Your task to perform on an android device: turn off location history Image 0: 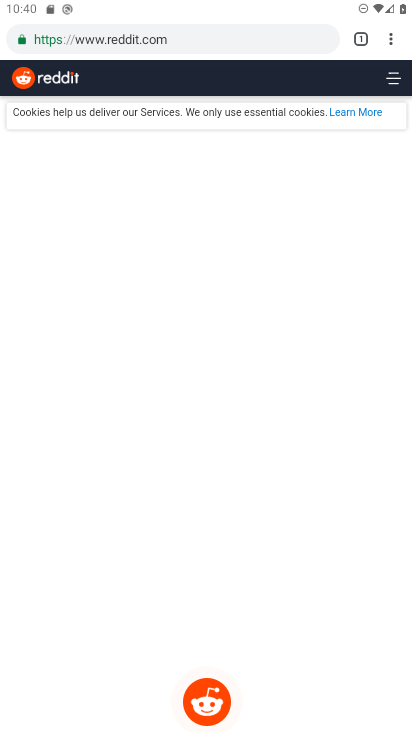
Step 0: press home button
Your task to perform on an android device: turn off location history Image 1: 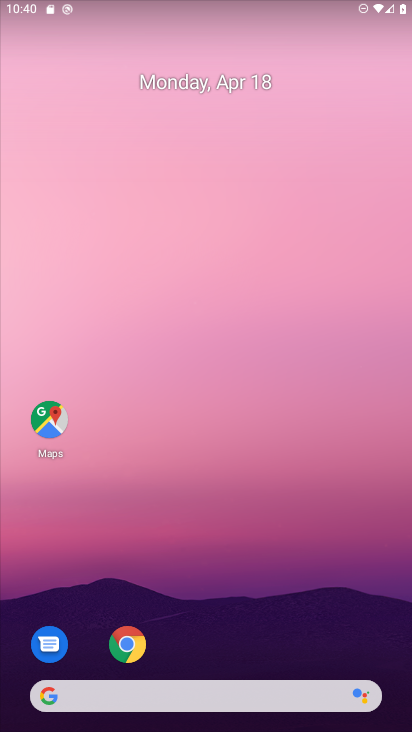
Step 1: drag from (210, 669) to (240, 45)
Your task to perform on an android device: turn off location history Image 2: 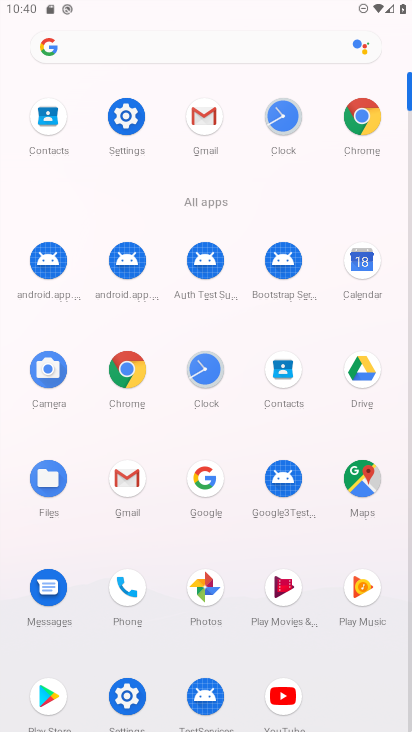
Step 2: click (118, 120)
Your task to perform on an android device: turn off location history Image 3: 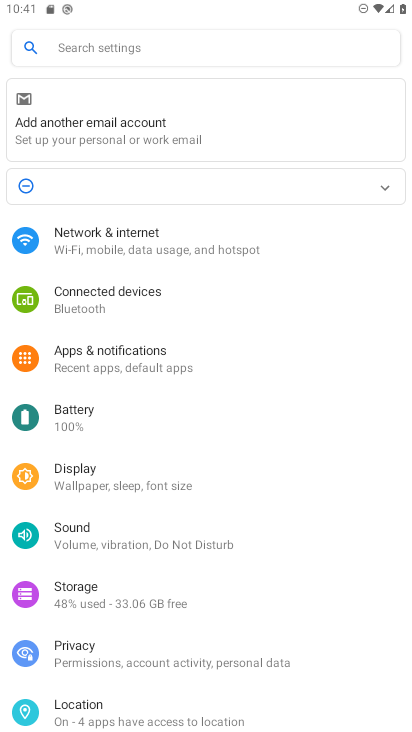
Step 3: drag from (106, 544) to (150, 195)
Your task to perform on an android device: turn off location history Image 4: 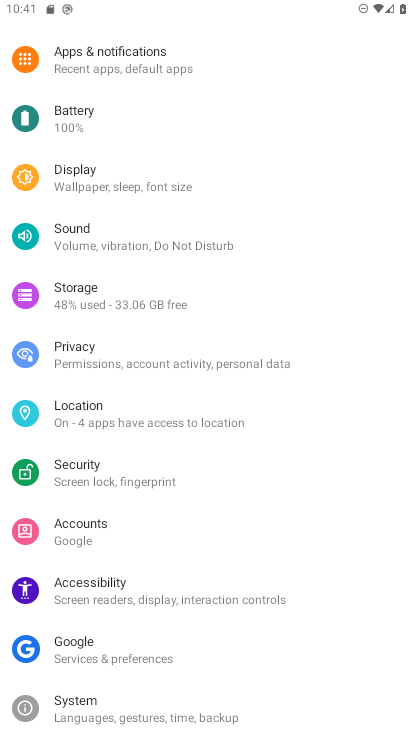
Step 4: click (132, 413)
Your task to perform on an android device: turn off location history Image 5: 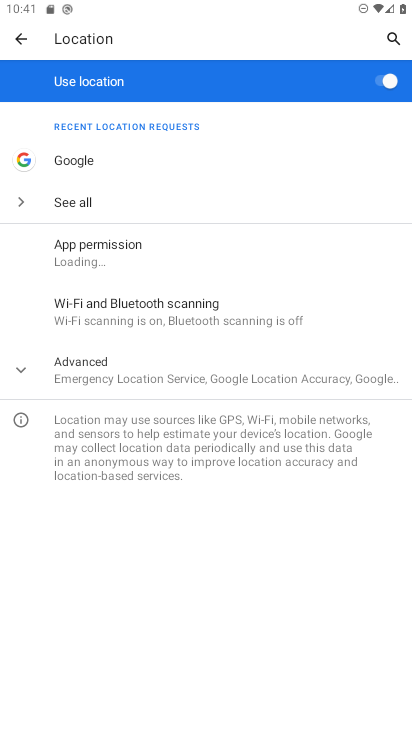
Step 5: click (115, 368)
Your task to perform on an android device: turn off location history Image 6: 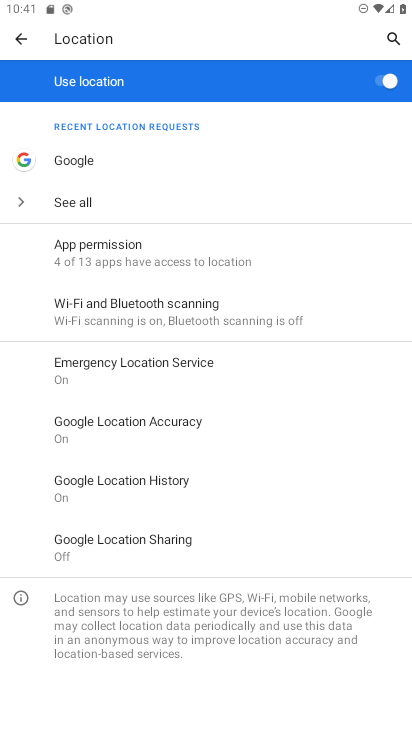
Step 6: click (122, 493)
Your task to perform on an android device: turn off location history Image 7: 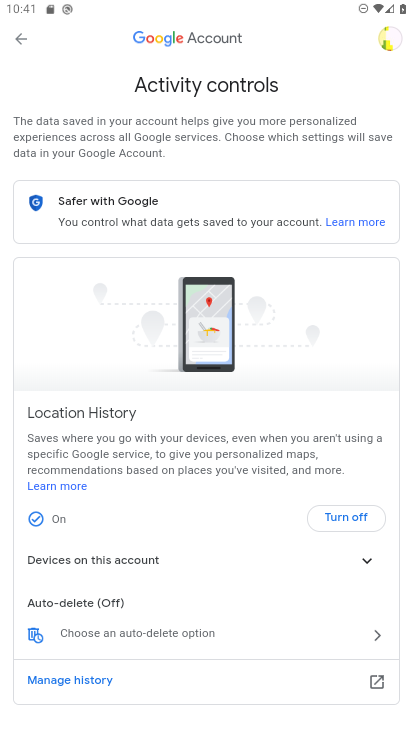
Step 7: click (351, 522)
Your task to perform on an android device: turn off location history Image 8: 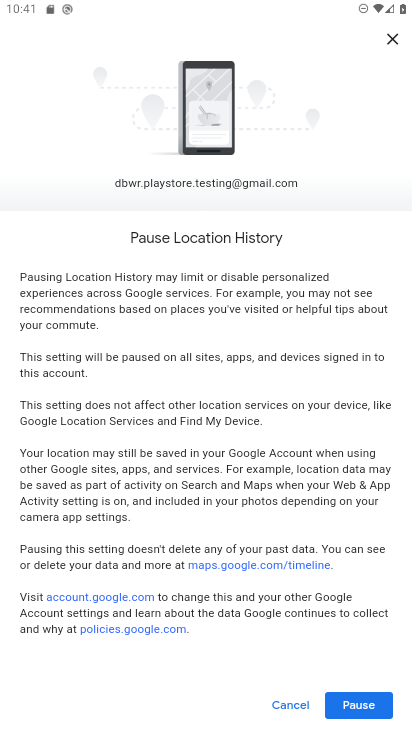
Step 8: click (339, 705)
Your task to perform on an android device: turn off location history Image 9: 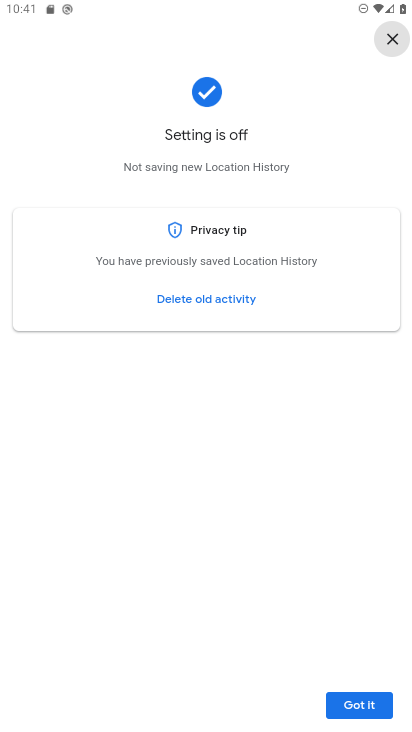
Step 9: click (339, 705)
Your task to perform on an android device: turn off location history Image 10: 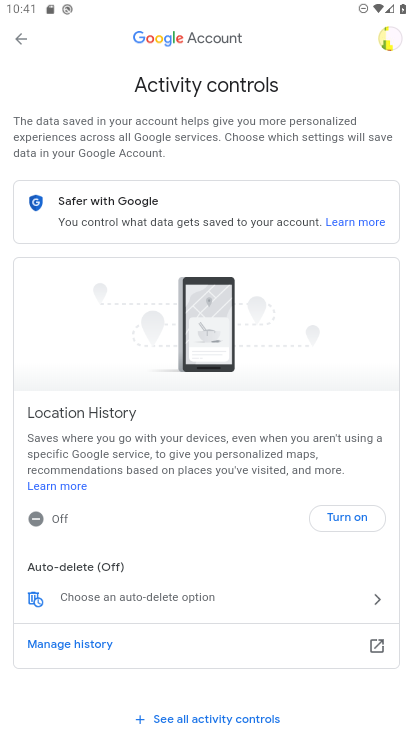
Step 10: task complete